Your task to perform on an android device: open chrome and create a bookmark for the current page Image 0: 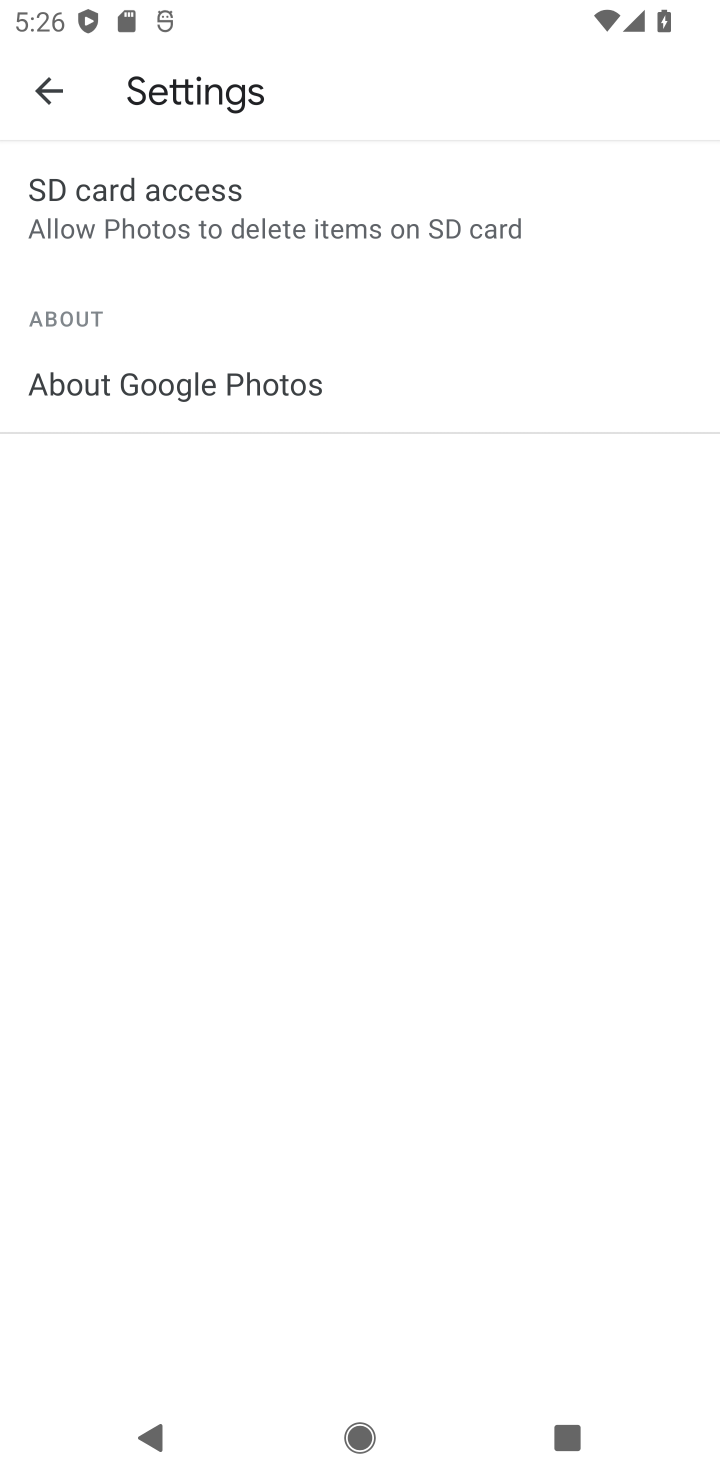
Step 0: press home button
Your task to perform on an android device: open chrome and create a bookmark for the current page Image 1: 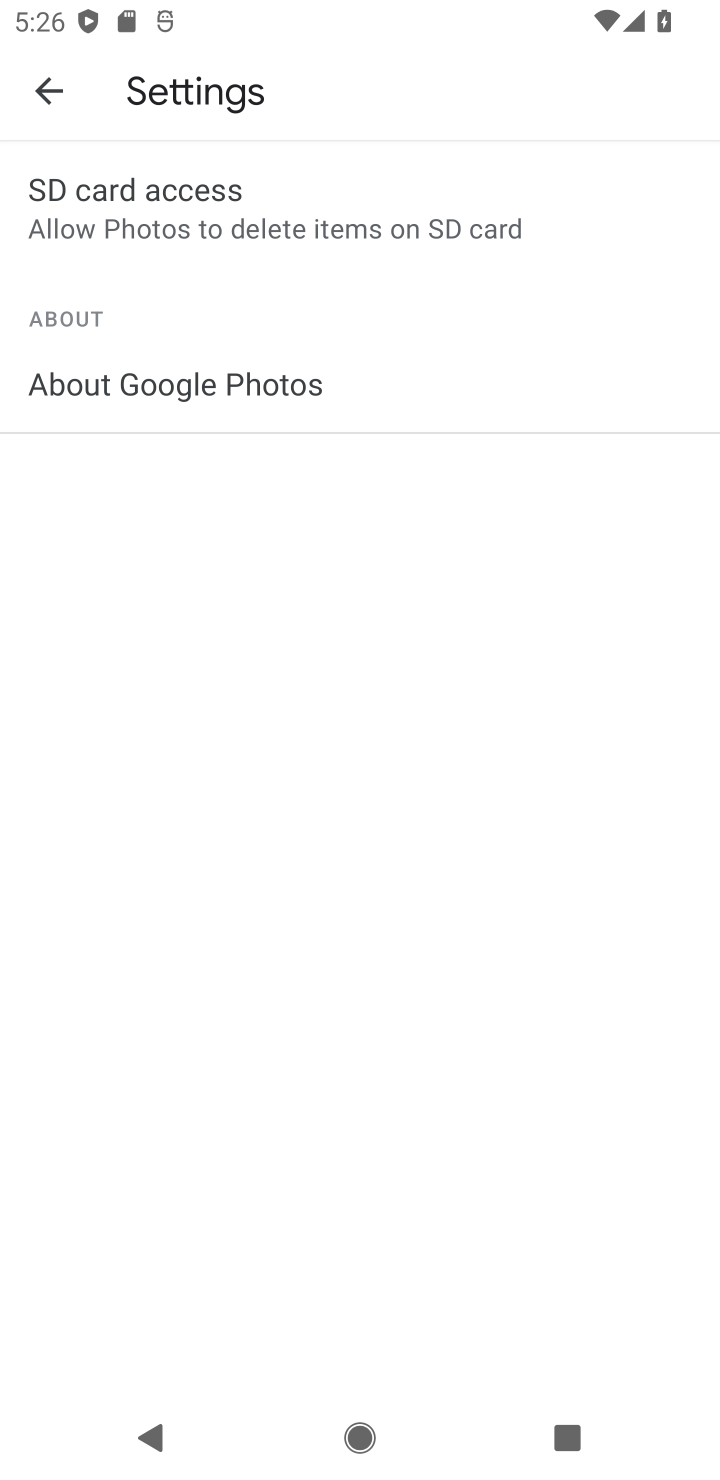
Step 1: press home button
Your task to perform on an android device: open chrome and create a bookmark for the current page Image 2: 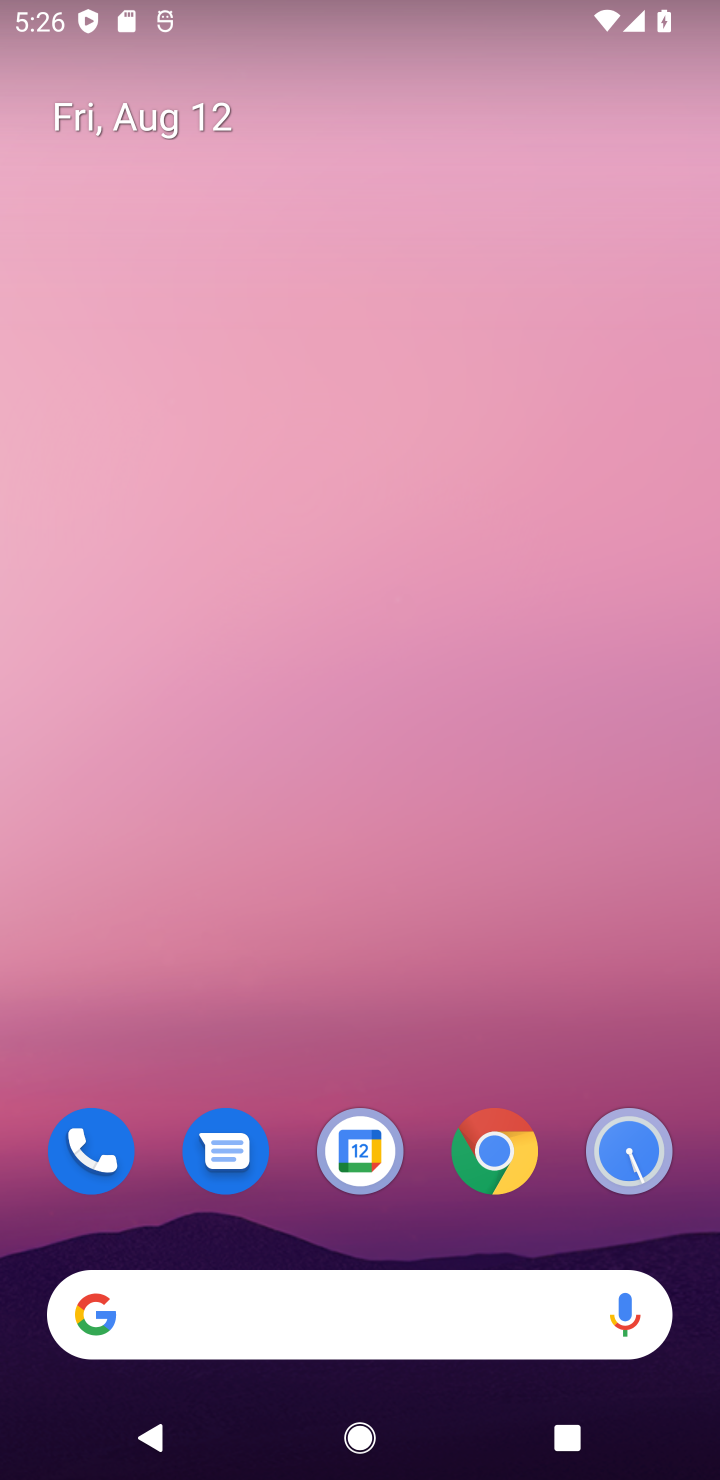
Step 2: drag from (451, 1044) to (343, 19)
Your task to perform on an android device: open chrome and create a bookmark for the current page Image 3: 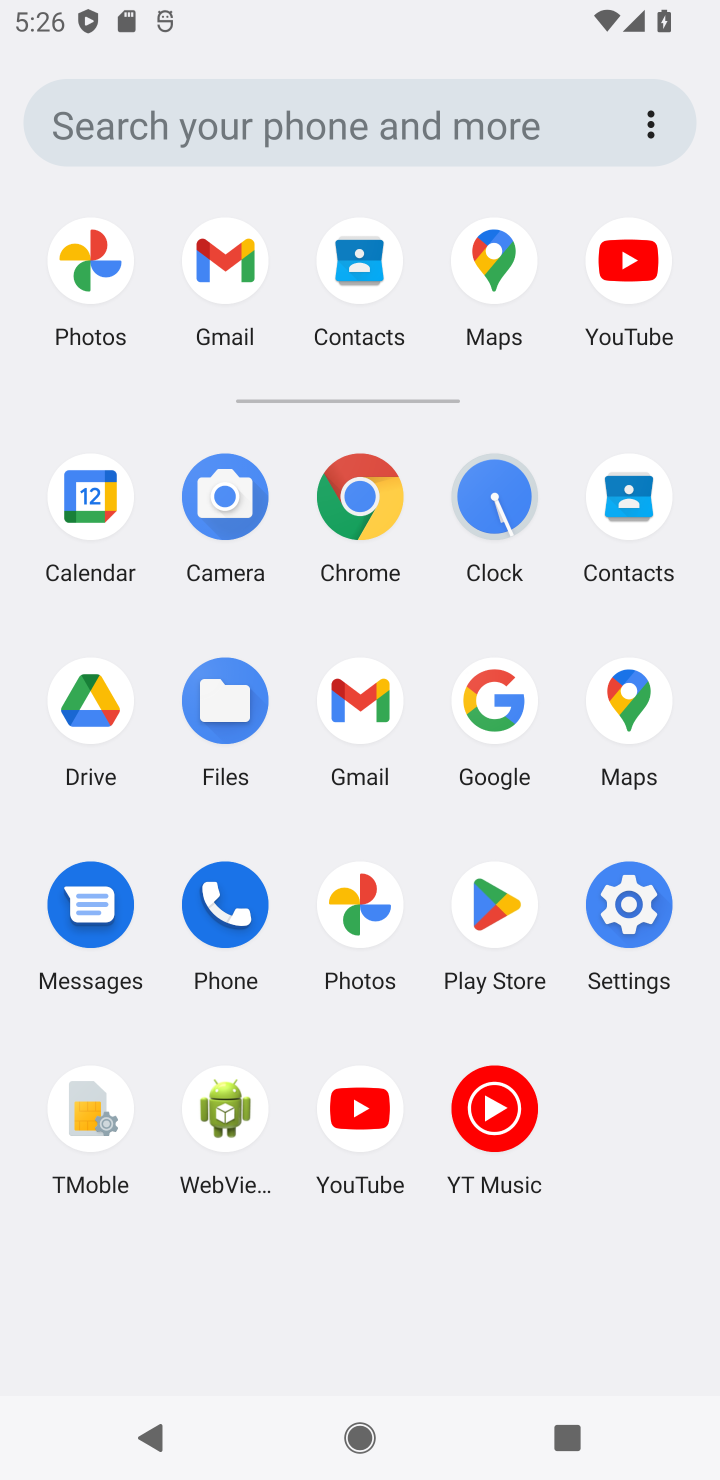
Step 3: click (363, 508)
Your task to perform on an android device: open chrome and create a bookmark for the current page Image 4: 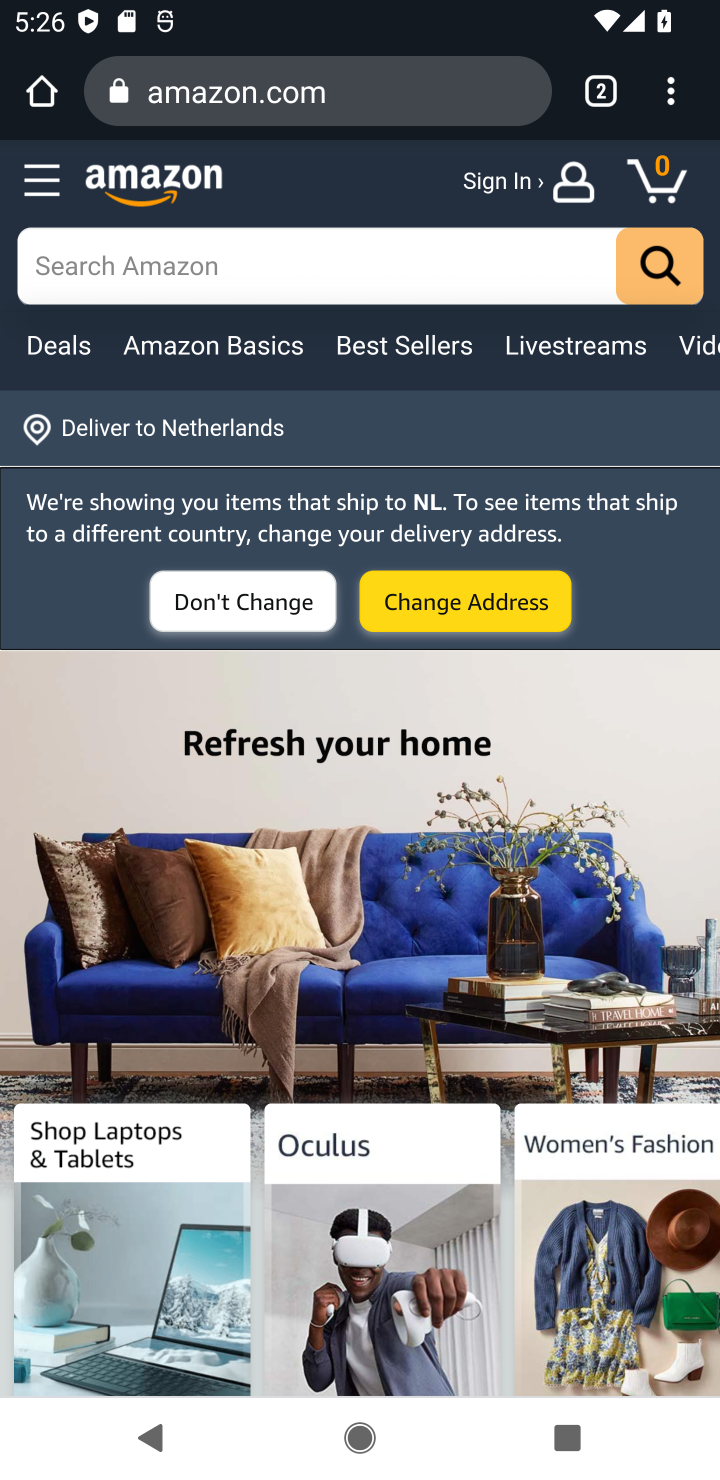
Step 4: task complete